Your task to perform on an android device: Go to accessibility settings Image 0: 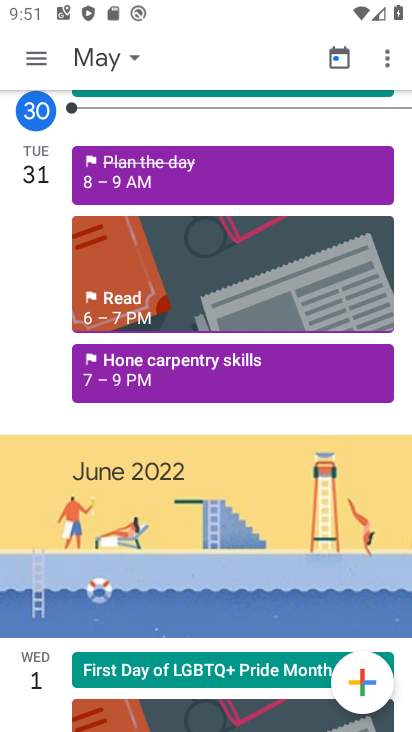
Step 0: press home button
Your task to perform on an android device: Go to accessibility settings Image 1: 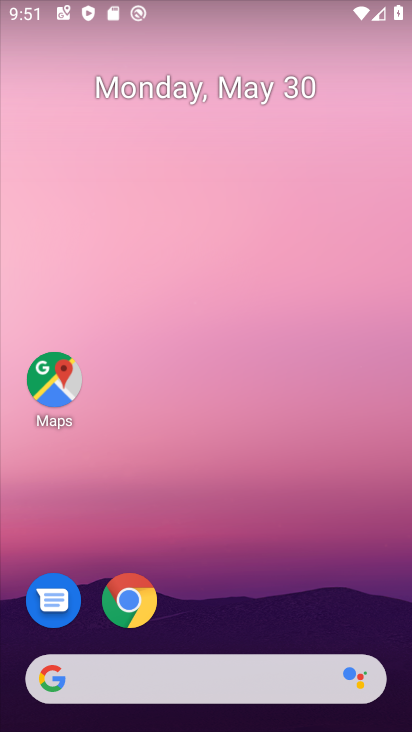
Step 1: drag from (273, 583) to (278, 98)
Your task to perform on an android device: Go to accessibility settings Image 2: 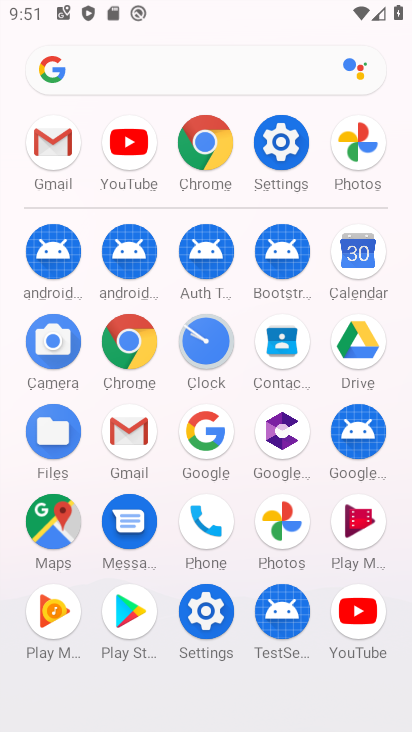
Step 2: click (280, 138)
Your task to perform on an android device: Go to accessibility settings Image 3: 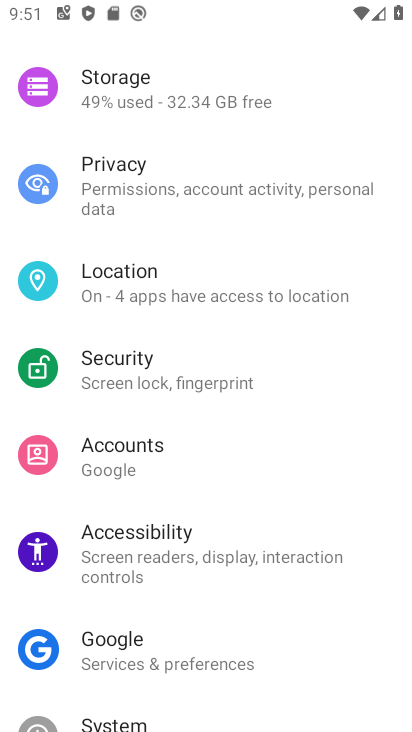
Step 3: click (193, 550)
Your task to perform on an android device: Go to accessibility settings Image 4: 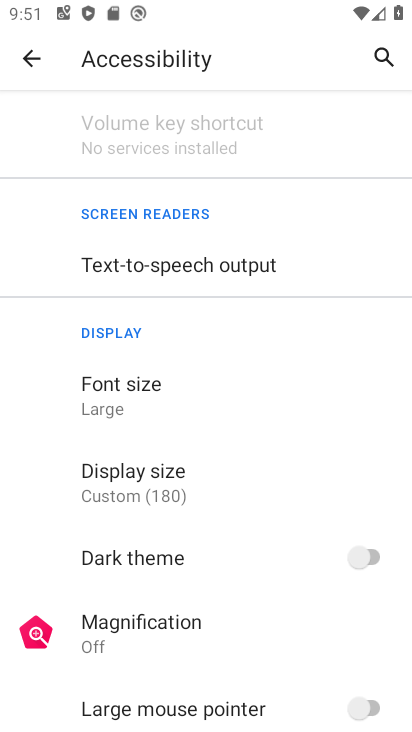
Step 4: task complete